Your task to perform on an android device: delete browsing data in the chrome app Image 0: 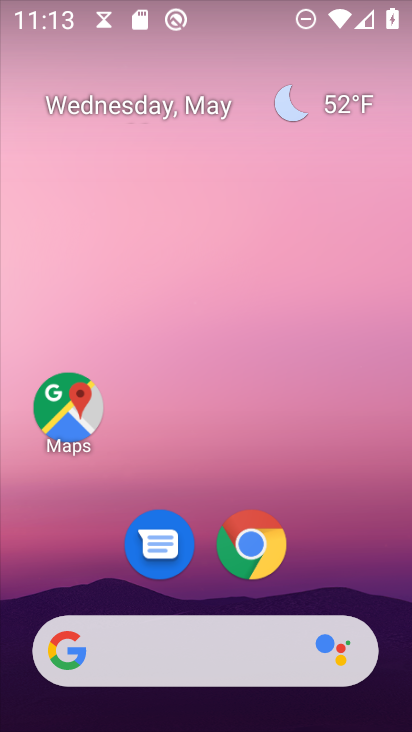
Step 0: click (252, 538)
Your task to perform on an android device: delete browsing data in the chrome app Image 1: 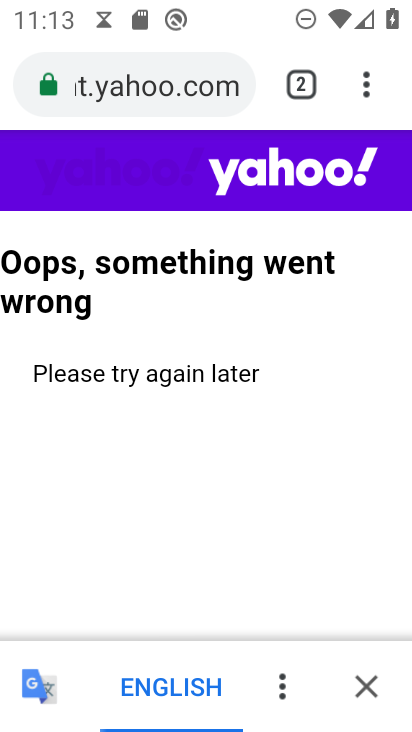
Step 1: click (372, 93)
Your task to perform on an android device: delete browsing data in the chrome app Image 2: 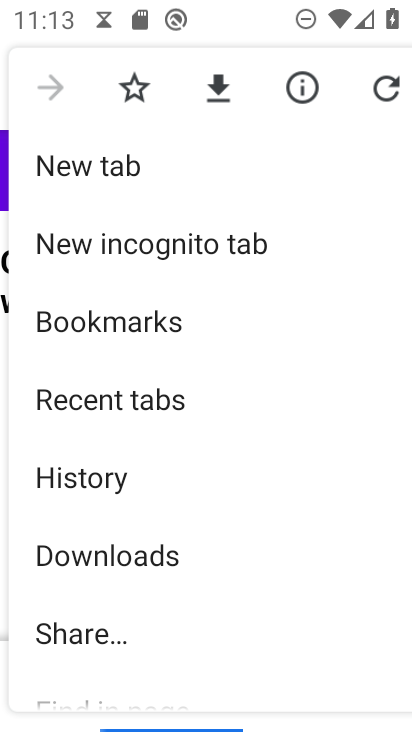
Step 2: click (97, 471)
Your task to perform on an android device: delete browsing data in the chrome app Image 3: 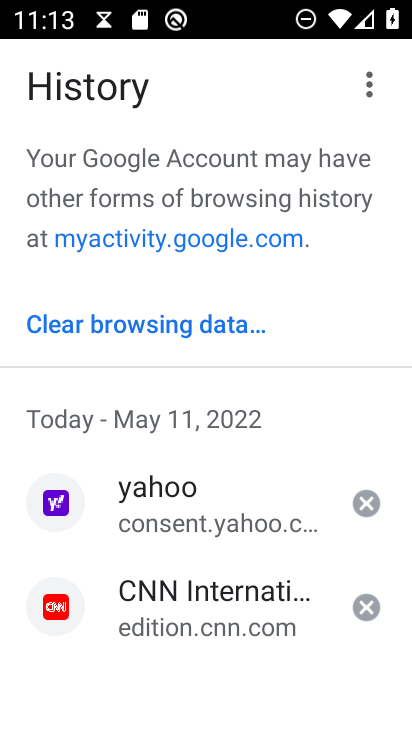
Step 3: click (147, 314)
Your task to perform on an android device: delete browsing data in the chrome app Image 4: 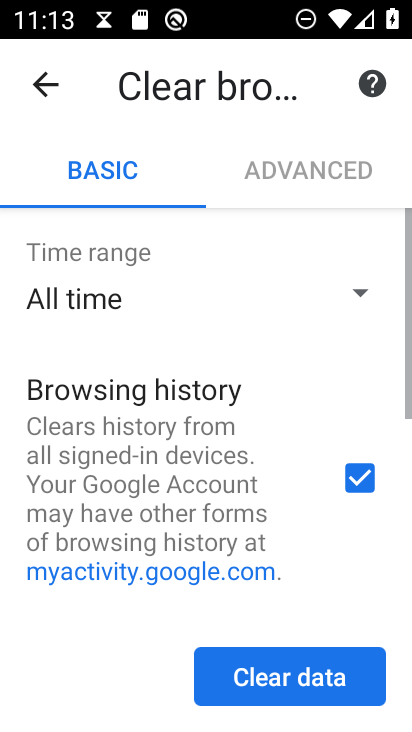
Step 4: click (274, 667)
Your task to perform on an android device: delete browsing data in the chrome app Image 5: 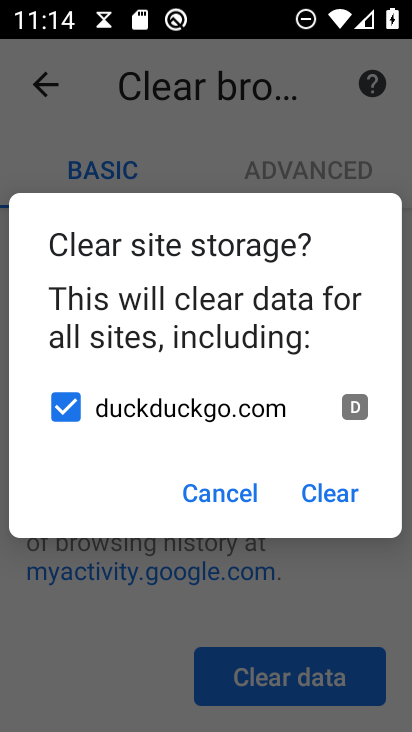
Step 5: click (321, 512)
Your task to perform on an android device: delete browsing data in the chrome app Image 6: 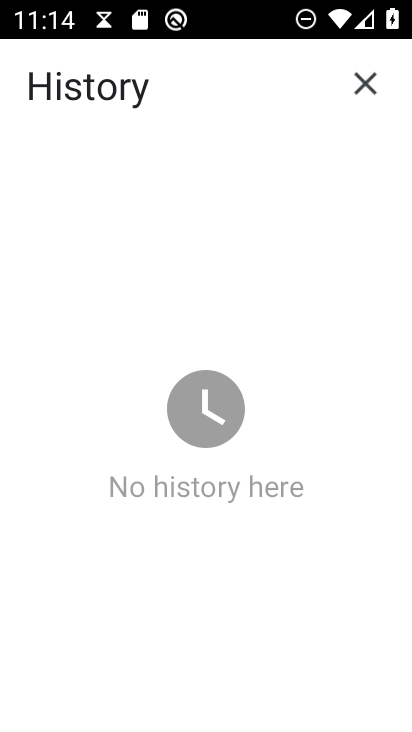
Step 6: task complete